Your task to perform on an android device: Go to network settings Image 0: 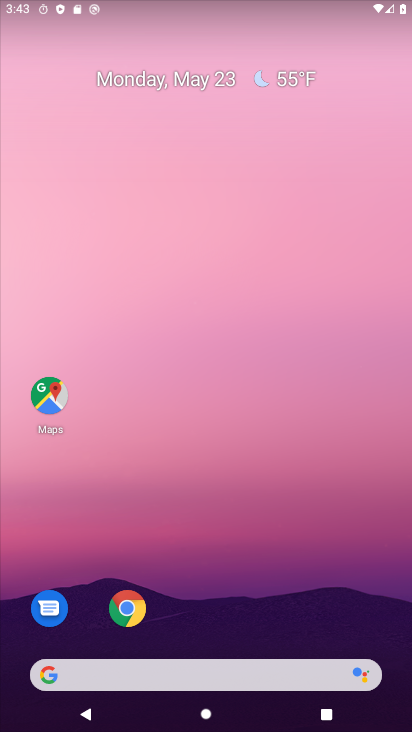
Step 0: press home button
Your task to perform on an android device: Go to network settings Image 1: 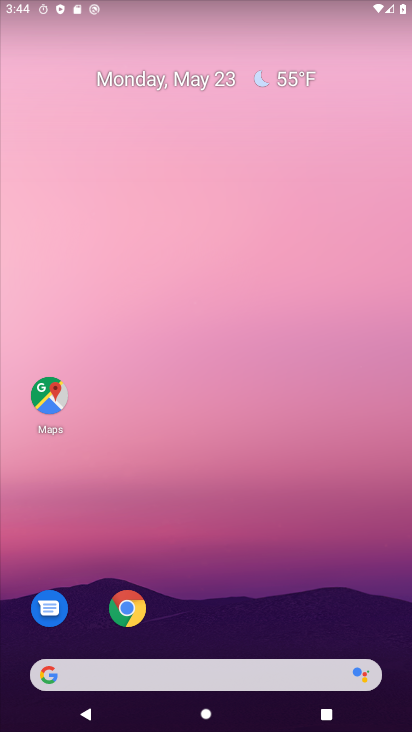
Step 1: drag from (106, 541) to (153, 132)
Your task to perform on an android device: Go to network settings Image 2: 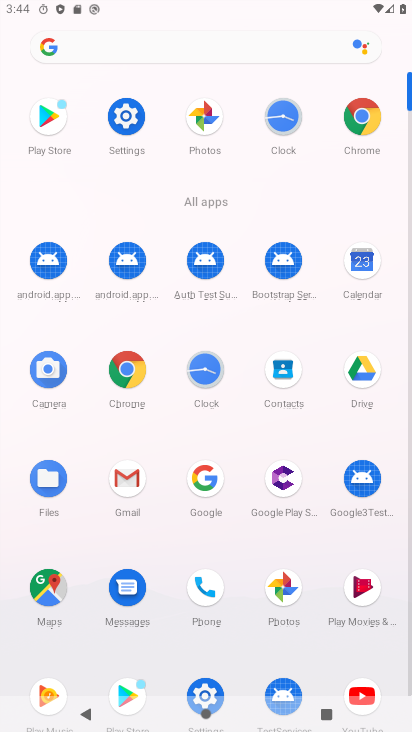
Step 2: click (121, 113)
Your task to perform on an android device: Go to network settings Image 3: 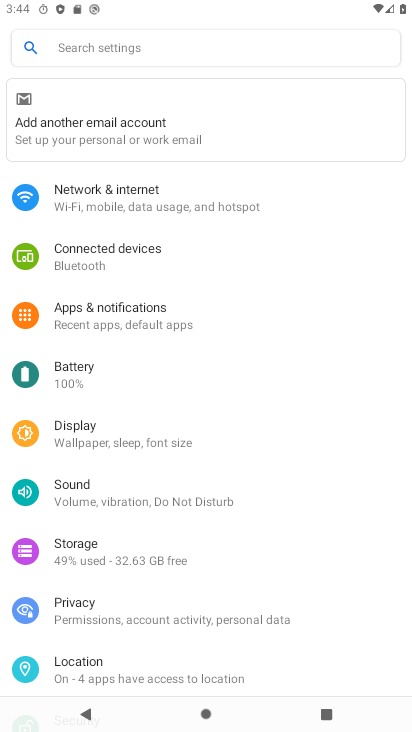
Step 3: click (78, 207)
Your task to perform on an android device: Go to network settings Image 4: 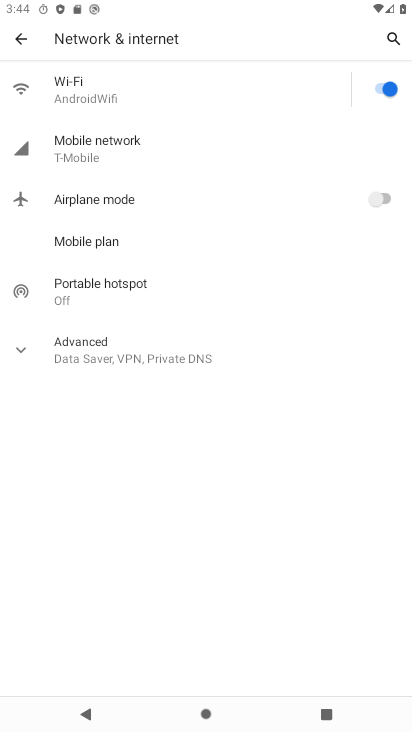
Step 4: click (105, 154)
Your task to perform on an android device: Go to network settings Image 5: 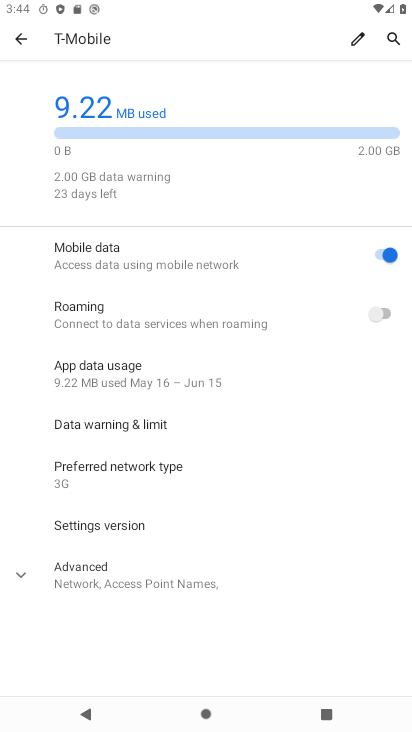
Step 5: task complete